Your task to perform on an android device: Search for Italian restaurants on Maps Image 0: 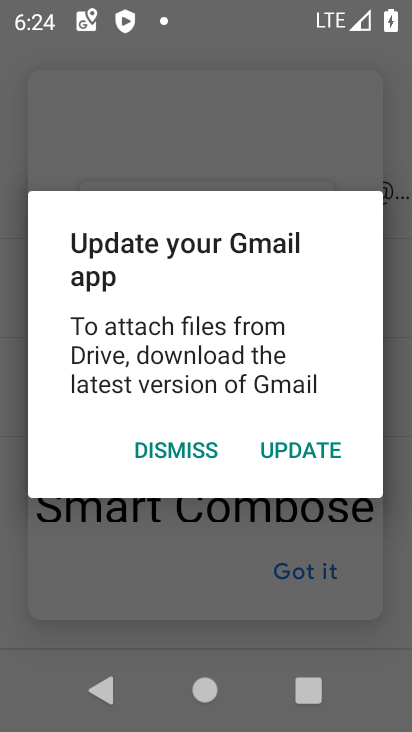
Step 0: press home button
Your task to perform on an android device: Search for Italian restaurants on Maps Image 1: 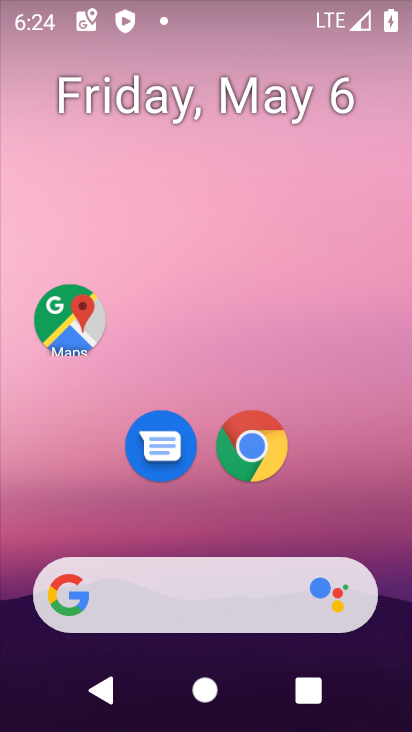
Step 1: click (69, 307)
Your task to perform on an android device: Search for Italian restaurants on Maps Image 2: 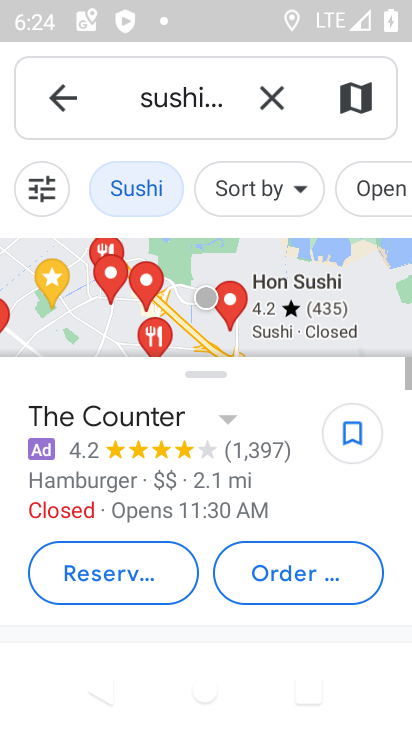
Step 2: click (279, 101)
Your task to perform on an android device: Search for Italian restaurants on Maps Image 3: 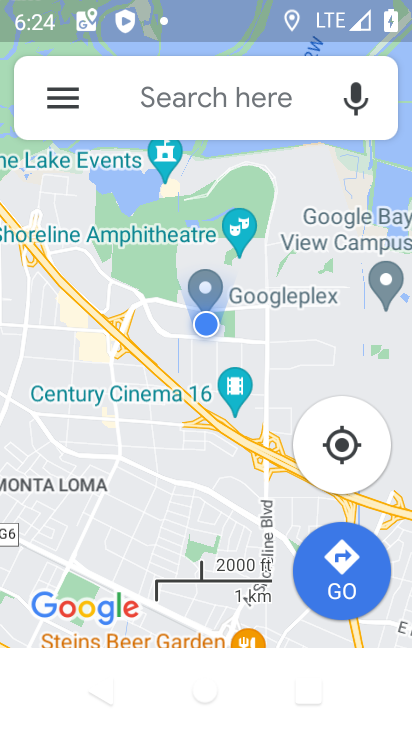
Step 3: click (169, 97)
Your task to perform on an android device: Search for Italian restaurants on Maps Image 4: 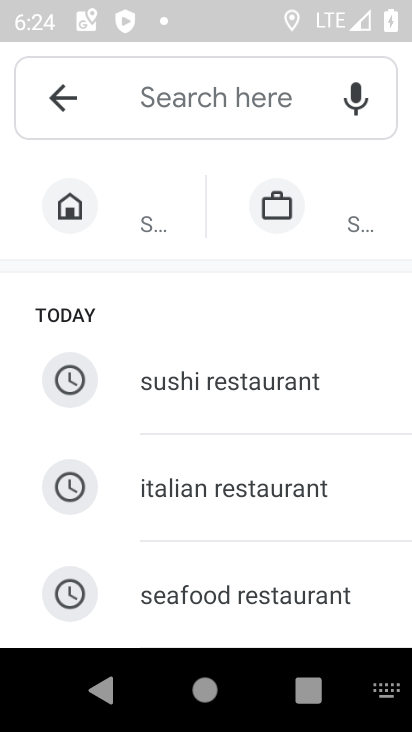
Step 4: click (220, 498)
Your task to perform on an android device: Search for Italian restaurants on Maps Image 5: 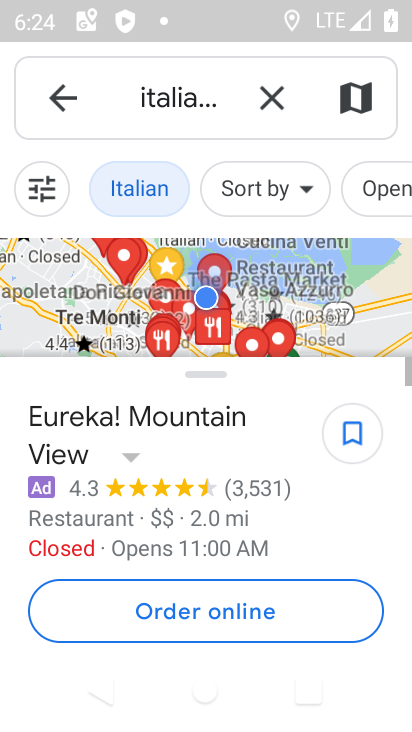
Step 5: task complete